Your task to perform on an android device: Open sound settings Image 0: 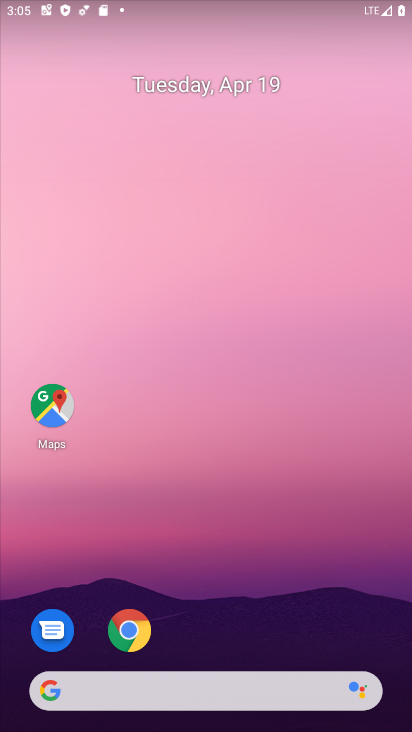
Step 0: drag from (212, 726) to (215, 17)
Your task to perform on an android device: Open sound settings Image 1: 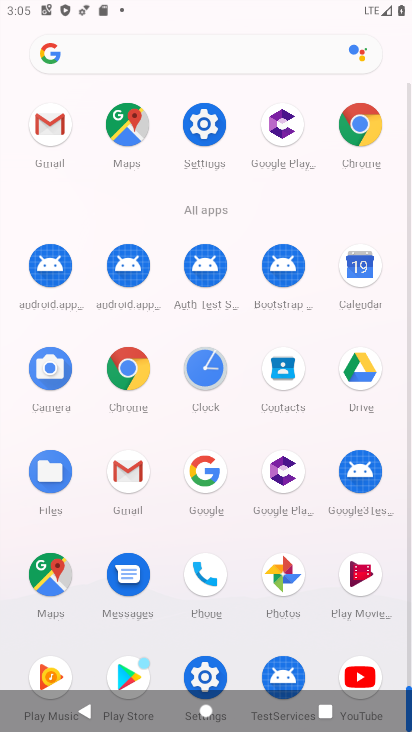
Step 1: click (196, 128)
Your task to perform on an android device: Open sound settings Image 2: 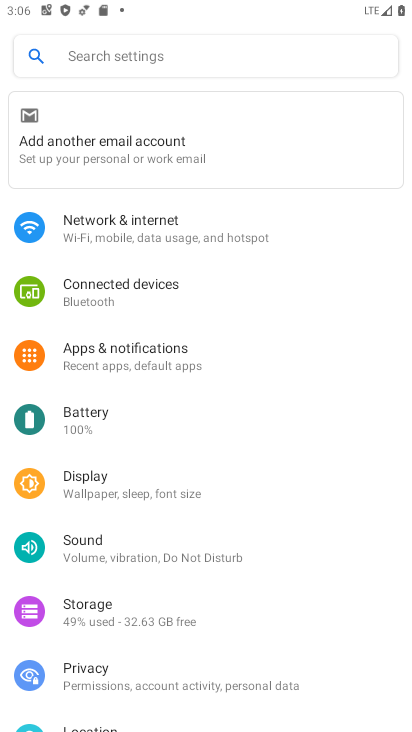
Step 2: click (99, 549)
Your task to perform on an android device: Open sound settings Image 3: 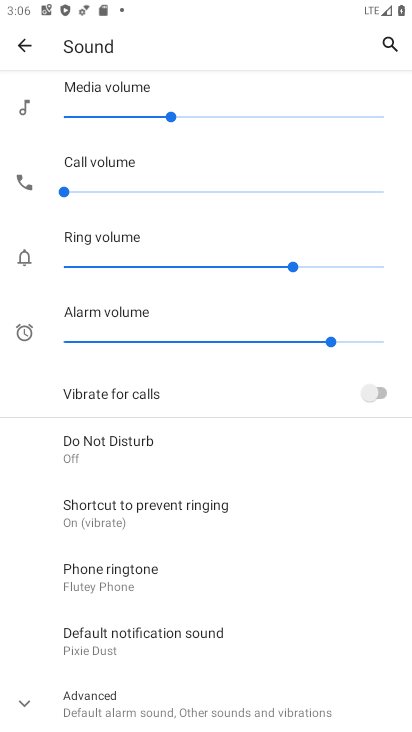
Step 3: task complete